Your task to perform on an android device: open app "Gmail" (install if not already installed) Image 0: 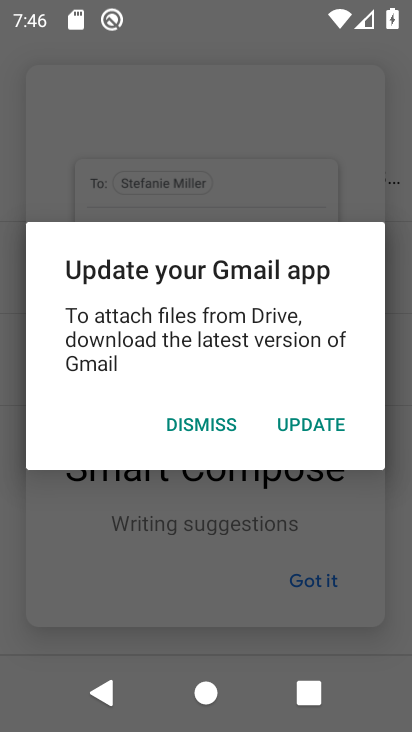
Step 0: press home button
Your task to perform on an android device: open app "Gmail" (install if not already installed) Image 1: 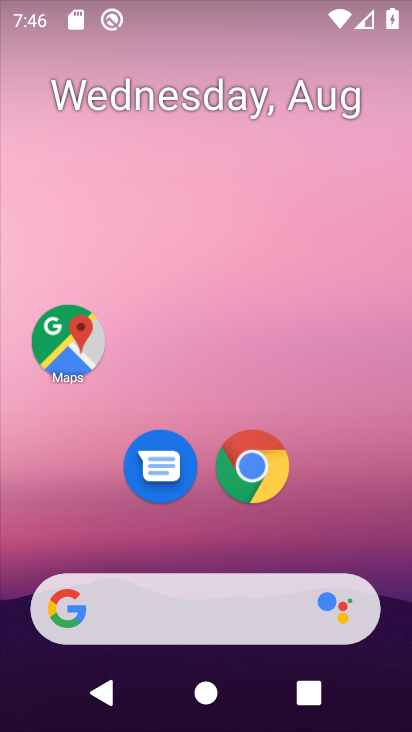
Step 1: drag from (173, 623) to (194, 148)
Your task to perform on an android device: open app "Gmail" (install if not already installed) Image 2: 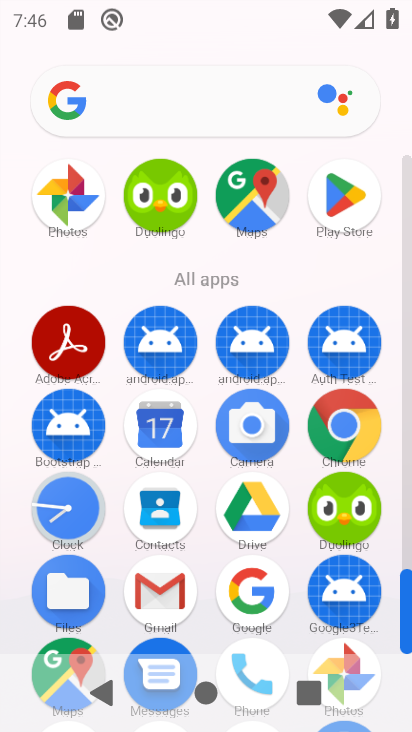
Step 2: click (349, 195)
Your task to perform on an android device: open app "Gmail" (install if not already installed) Image 3: 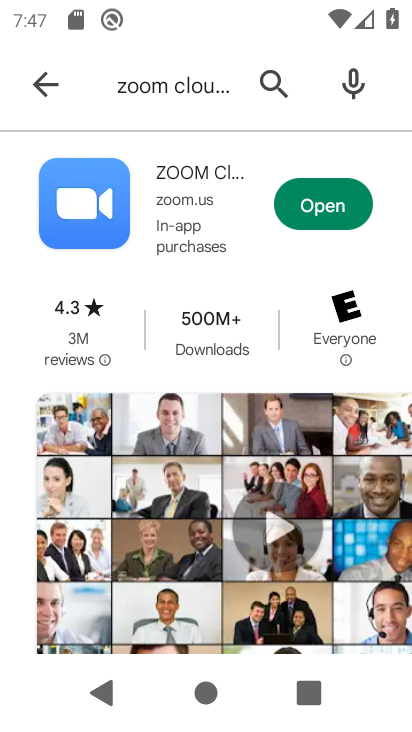
Step 3: press back button
Your task to perform on an android device: open app "Gmail" (install if not already installed) Image 4: 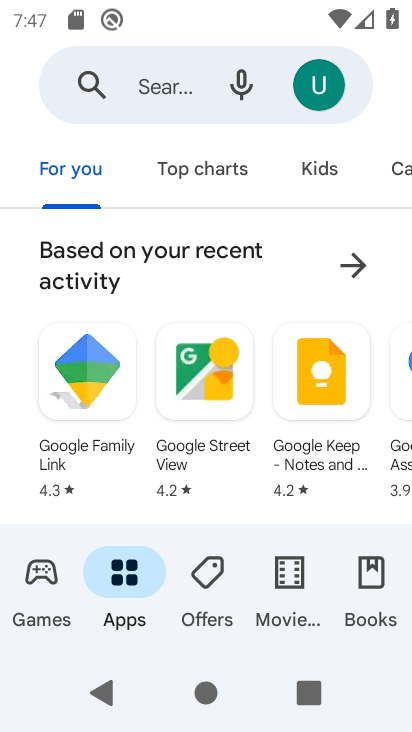
Step 4: click (178, 92)
Your task to perform on an android device: open app "Gmail" (install if not already installed) Image 5: 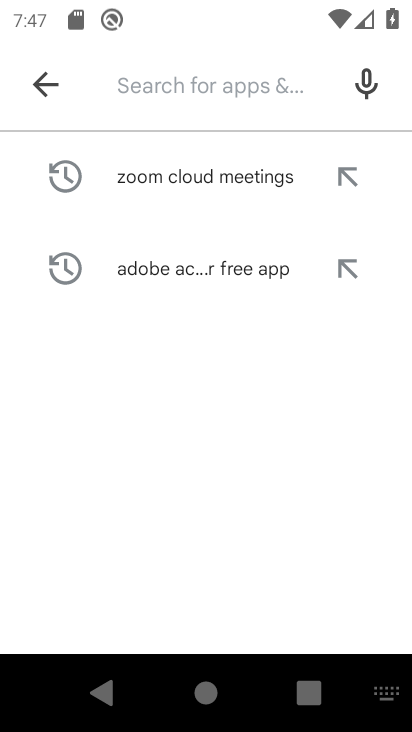
Step 5: type "Gmail"
Your task to perform on an android device: open app "Gmail" (install if not already installed) Image 6: 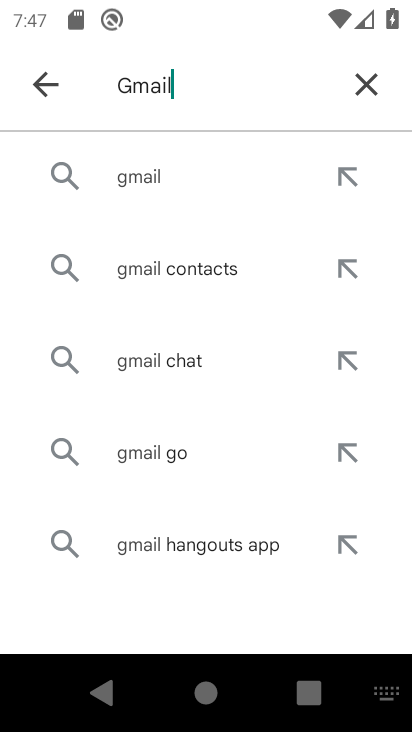
Step 6: click (155, 181)
Your task to perform on an android device: open app "Gmail" (install if not already installed) Image 7: 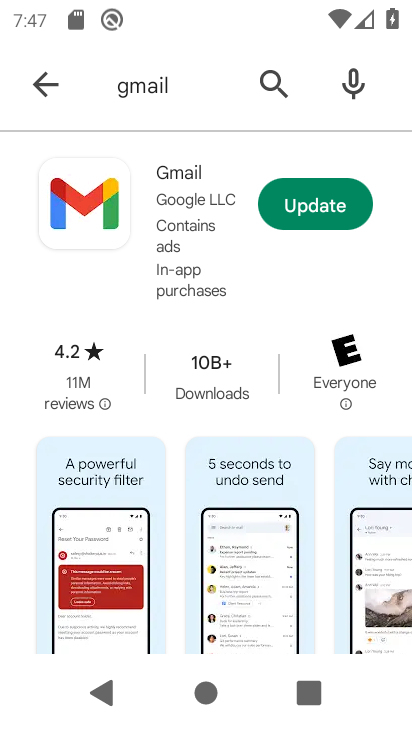
Step 7: click (287, 212)
Your task to perform on an android device: open app "Gmail" (install if not already installed) Image 8: 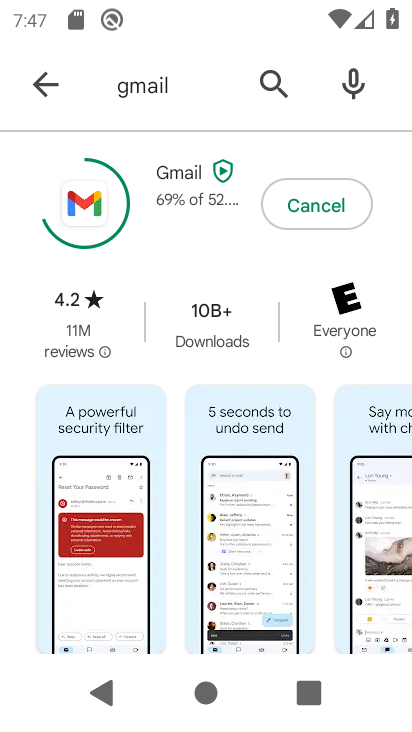
Step 8: click (183, 172)
Your task to perform on an android device: open app "Gmail" (install if not already installed) Image 9: 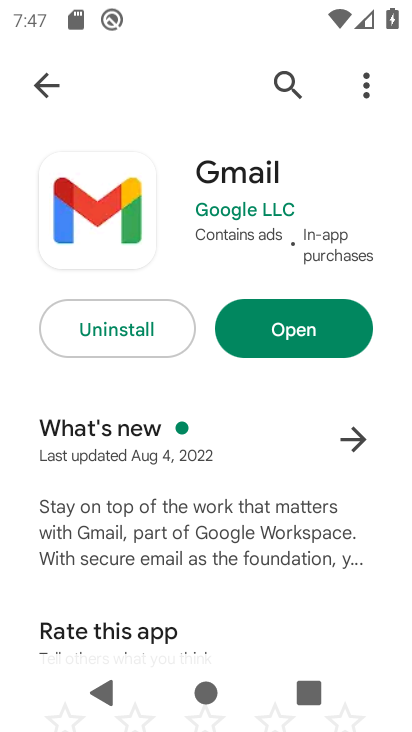
Step 9: click (276, 327)
Your task to perform on an android device: open app "Gmail" (install if not already installed) Image 10: 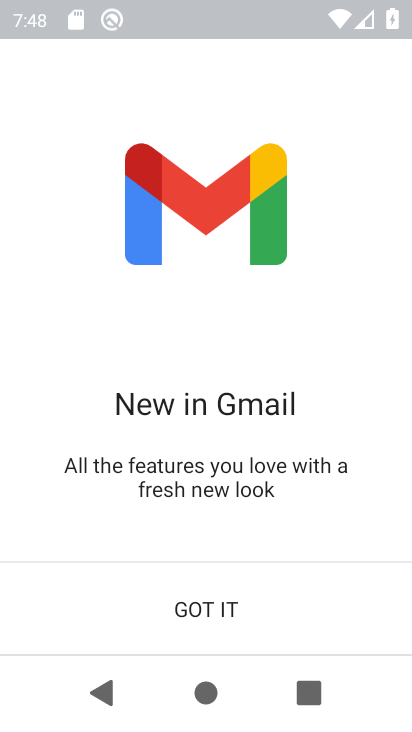
Step 10: click (198, 607)
Your task to perform on an android device: open app "Gmail" (install if not already installed) Image 11: 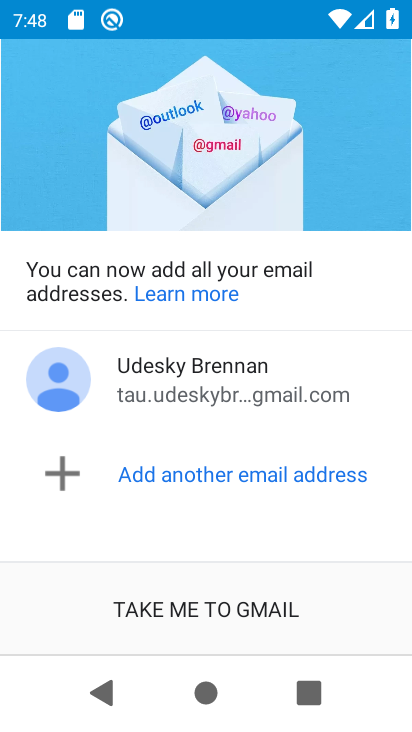
Step 11: click (198, 607)
Your task to perform on an android device: open app "Gmail" (install if not already installed) Image 12: 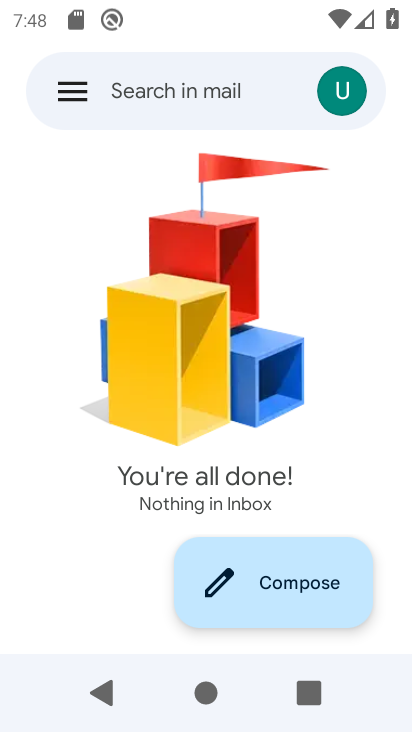
Step 12: task complete